Your task to perform on an android device: turn on data saver in the chrome app Image 0: 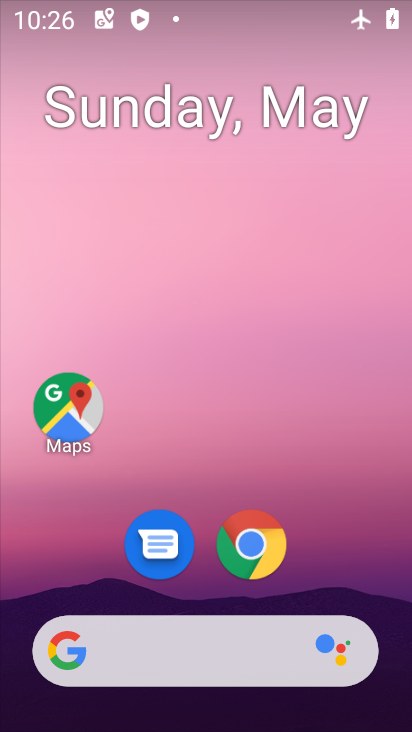
Step 0: click (252, 545)
Your task to perform on an android device: turn on data saver in the chrome app Image 1: 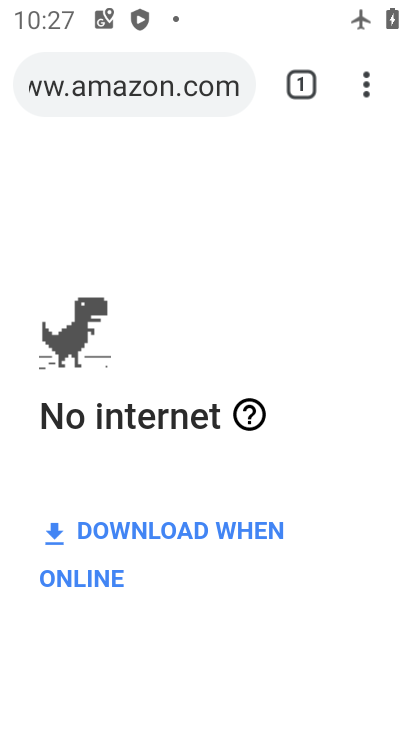
Step 1: click (372, 80)
Your task to perform on an android device: turn on data saver in the chrome app Image 2: 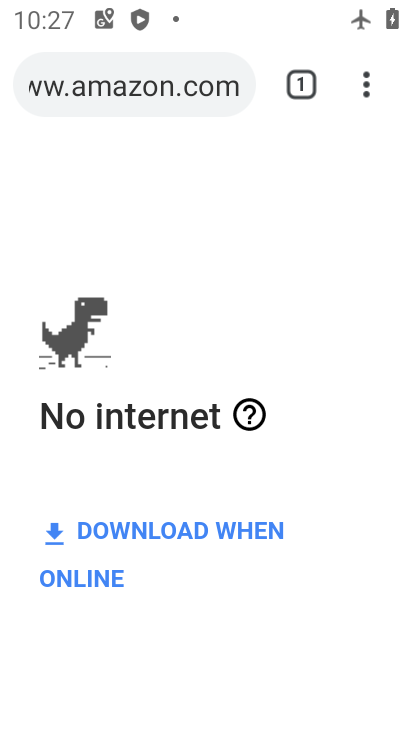
Step 2: click (365, 85)
Your task to perform on an android device: turn on data saver in the chrome app Image 3: 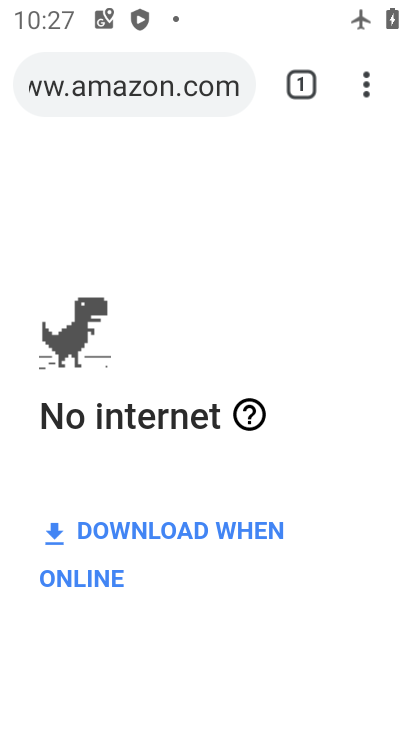
Step 3: click (366, 77)
Your task to perform on an android device: turn on data saver in the chrome app Image 4: 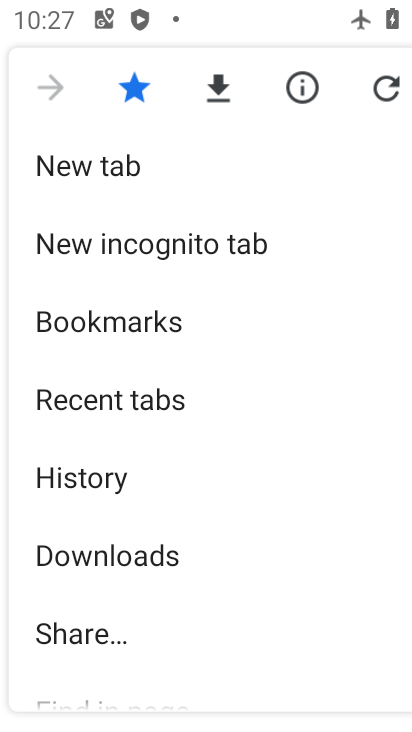
Step 4: drag from (220, 601) to (224, 234)
Your task to perform on an android device: turn on data saver in the chrome app Image 5: 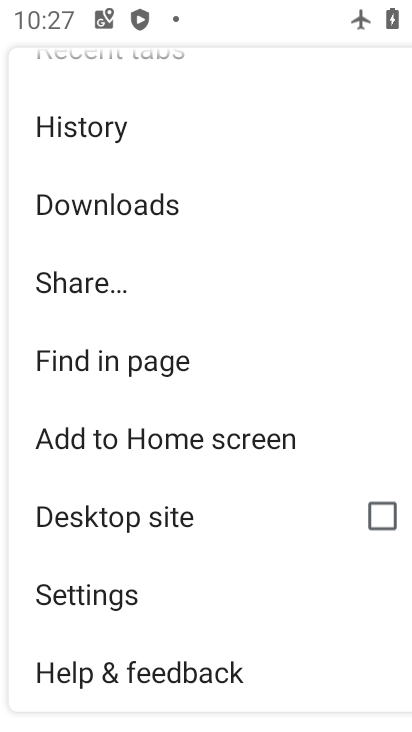
Step 5: click (148, 576)
Your task to perform on an android device: turn on data saver in the chrome app Image 6: 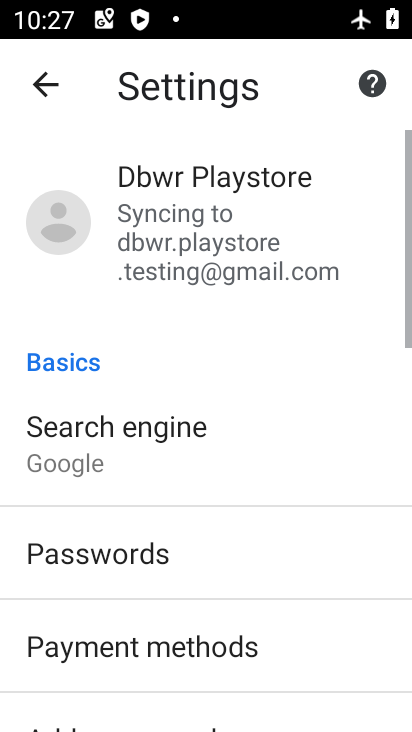
Step 6: drag from (217, 626) to (232, 253)
Your task to perform on an android device: turn on data saver in the chrome app Image 7: 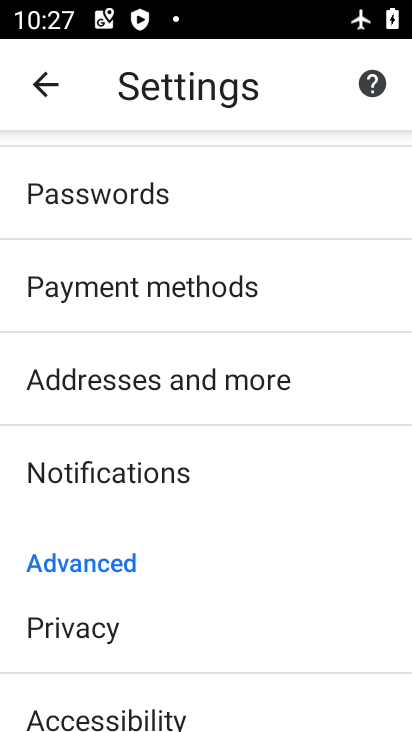
Step 7: drag from (199, 573) to (222, 239)
Your task to perform on an android device: turn on data saver in the chrome app Image 8: 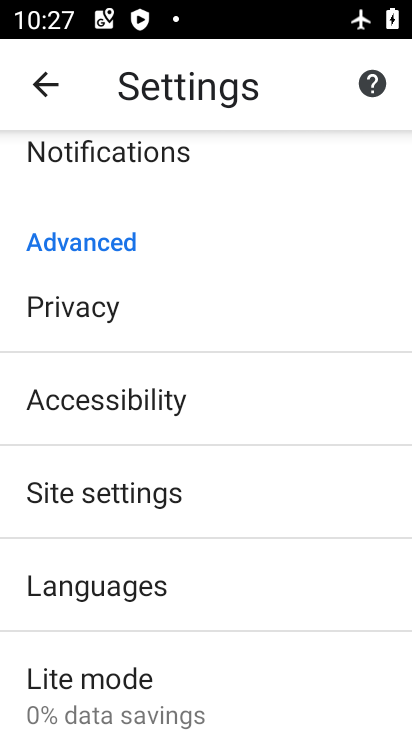
Step 8: click (210, 495)
Your task to perform on an android device: turn on data saver in the chrome app Image 9: 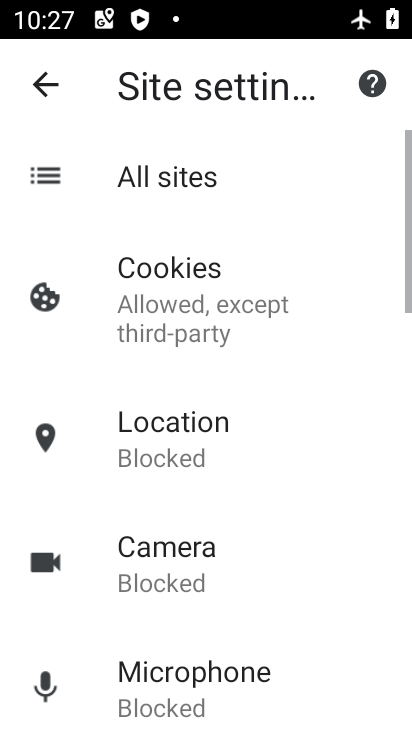
Step 9: click (81, 79)
Your task to perform on an android device: turn on data saver in the chrome app Image 10: 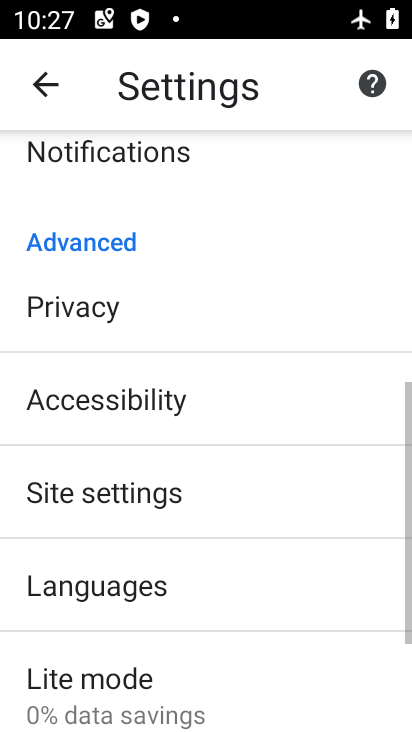
Step 10: click (161, 686)
Your task to perform on an android device: turn on data saver in the chrome app Image 11: 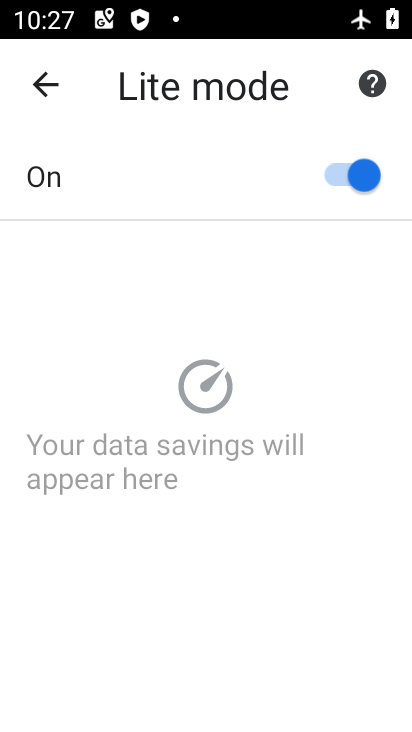
Step 11: click (327, 178)
Your task to perform on an android device: turn on data saver in the chrome app Image 12: 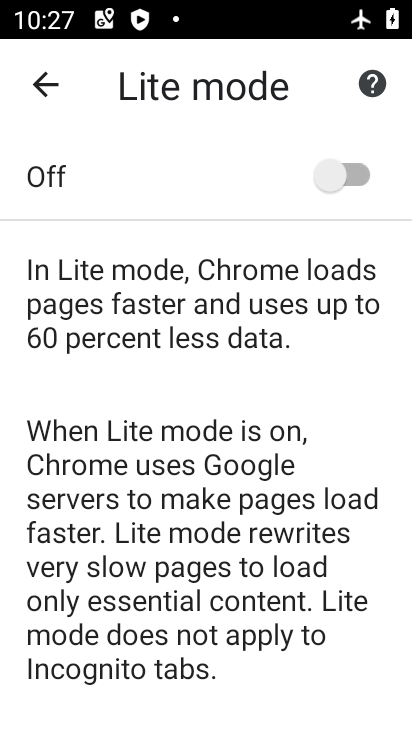
Step 12: click (330, 177)
Your task to perform on an android device: turn on data saver in the chrome app Image 13: 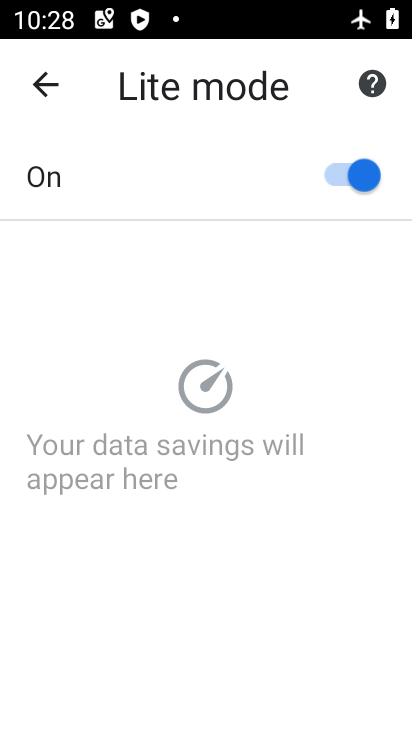
Step 13: task complete